Your task to perform on an android device: turn on airplane mode Image 0: 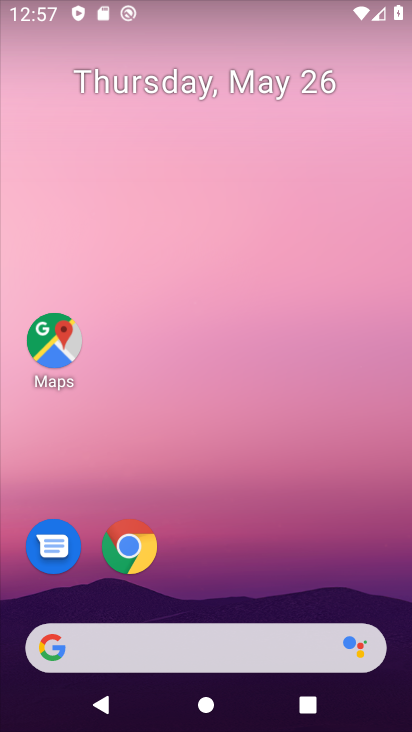
Step 0: drag from (297, 572) to (250, 9)
Your task to perform on an android device: turn on airplane mode Image 1: 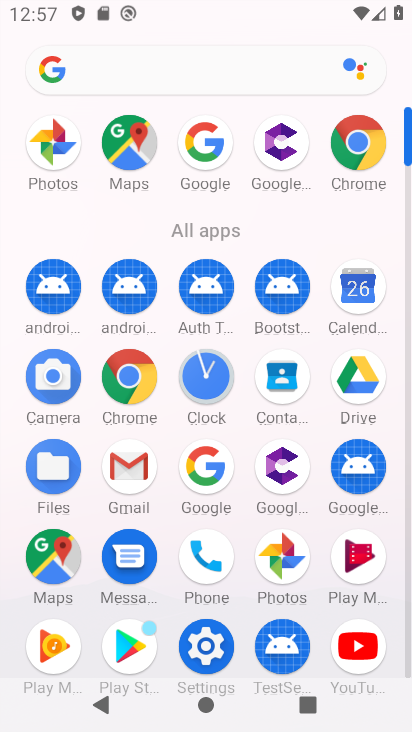
Step 1: click (214, 644)
Your task to perform on an android device: turn on airplane mode Image 2: 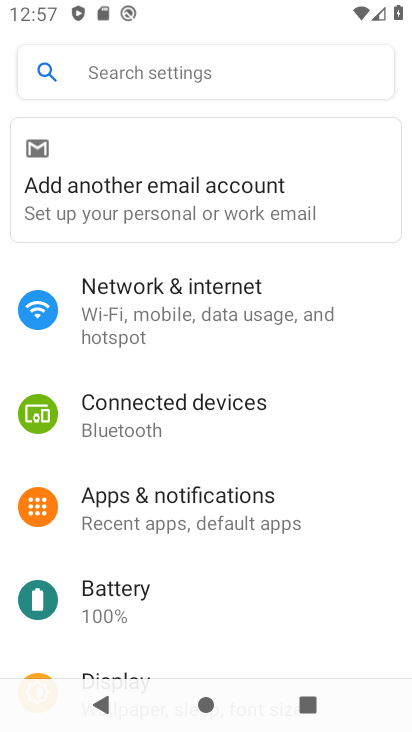
Step 2: click (210, 288)
Your task to perform on an android device: turn on airplane mode Image 3: 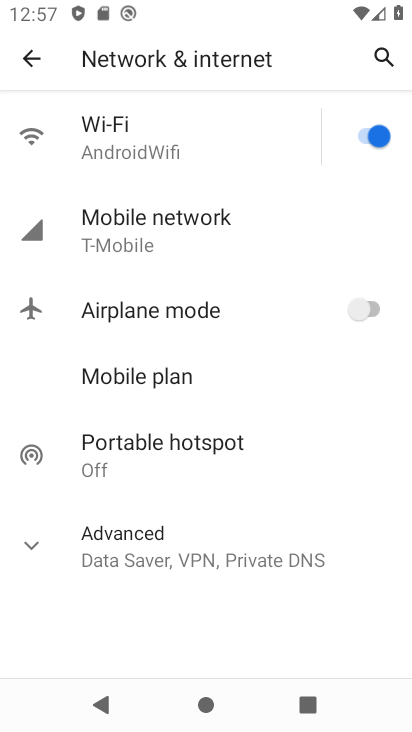
Step 3: click (365, 306)
Your task to perform on an android device: turn on airplane mode Image 4: 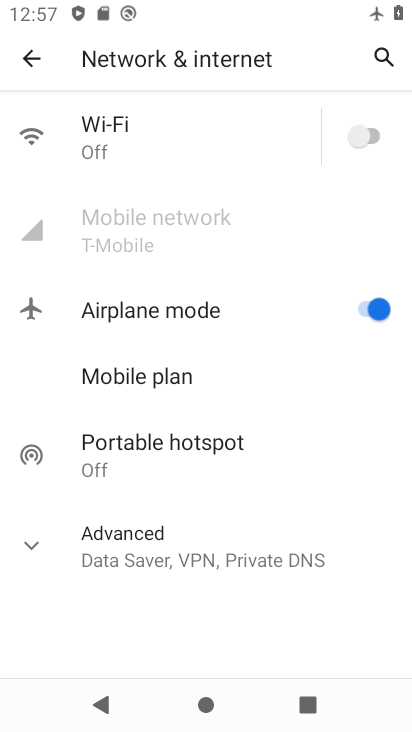
Step 4: task complete